Your task to perform on an android device: check data usage Image 0: 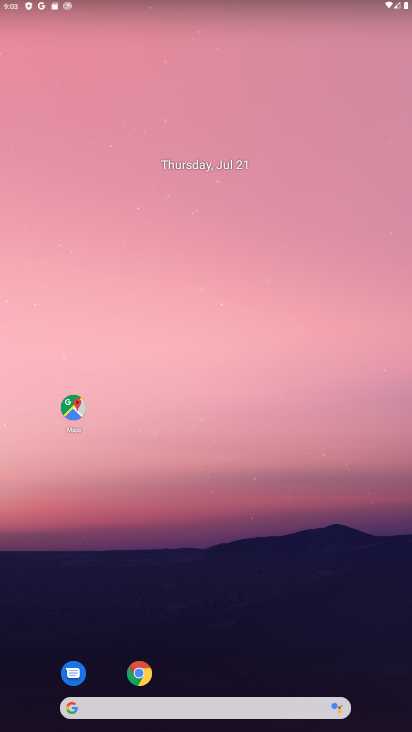
Step 0: drag from (223, 667) to (228, 21)
Your task to perform on an android device: check data usage Image 1: 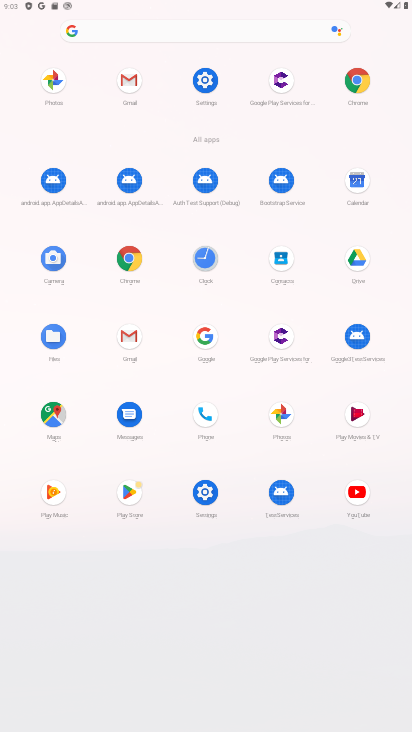
Step 1: click (202, 74)
Your task to perform on an android device: check data usage Image 2: 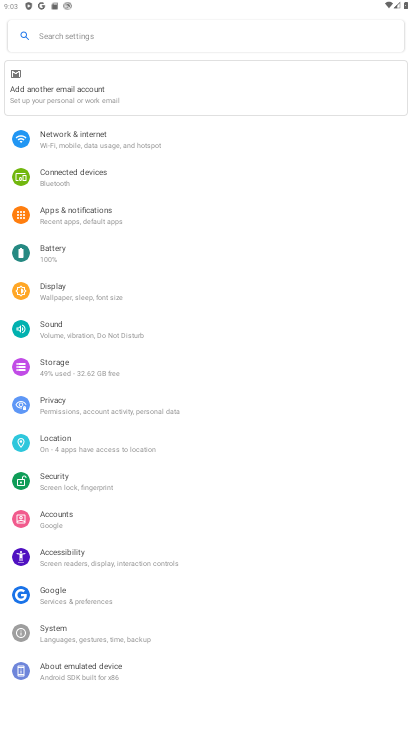
Step 2: click (120, 134)
Your task to perform on an android device: check data usage Image 3: 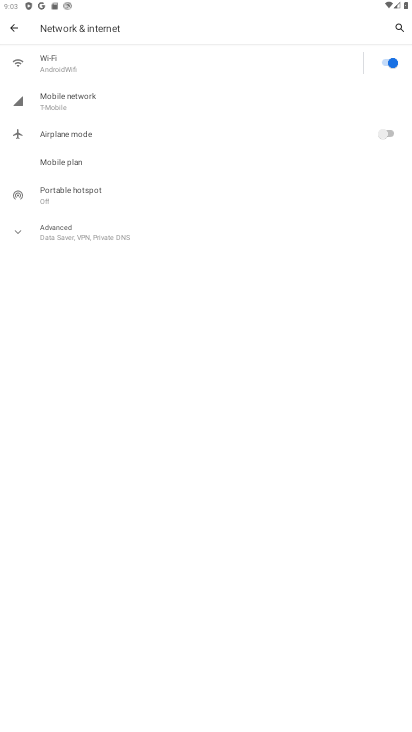
Step 3: click (89, 101)
Your task to perform on an android device: check data usage Image 4: 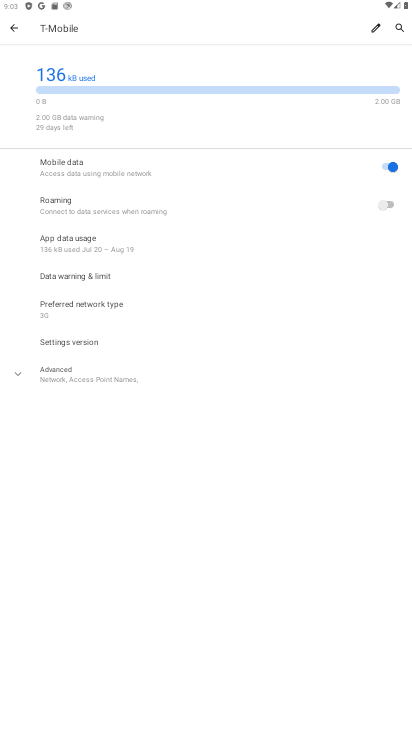
Step 4: click (105, 243)
Your task to perform on an android device: check data usage Image 5: 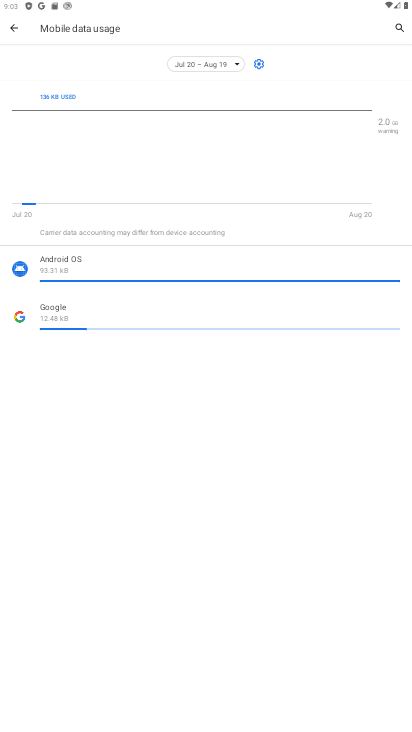
Step 5: task complete